Your task to perform on an android device: Toggle the flashlight Image 0: 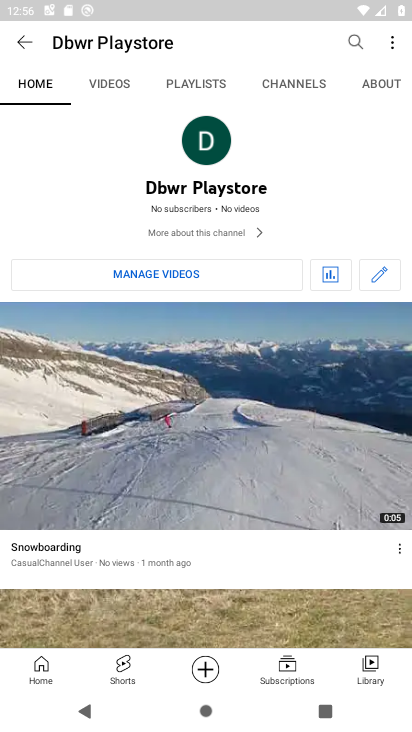
Step 0: press home button
Your task to perform on an android device: Toggle the flashlight Image 1: 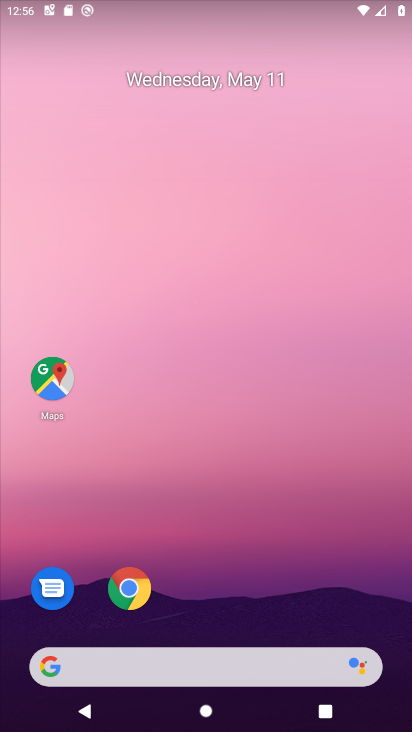
Step 1: drag from (115, 9) to (188, 562)
Your task to perform on an android device: Toggle the flashlight Image 2: 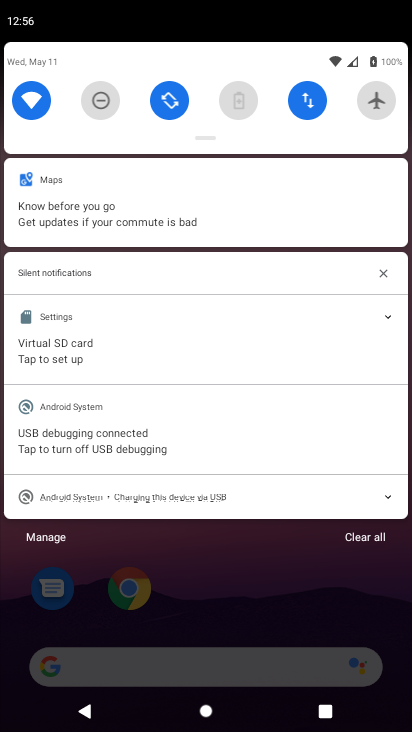
Step 2: drag from (127, 179) to (212, 490)
Your task to perform on an android device: Toggle the flashlight Image 3: 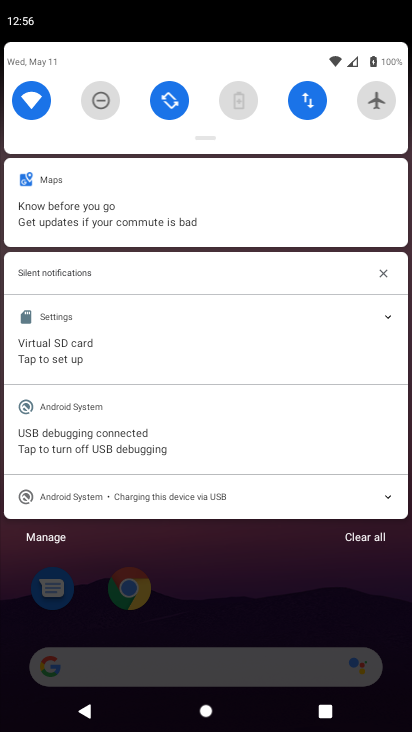
Step 3: drag from (216, 89) to (260, 386)
Your task to perform on an android device: Toggle the flashlight Image 4: 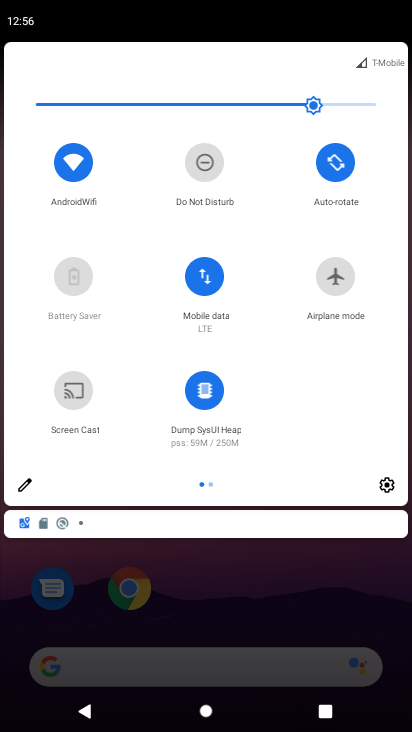
Step 4: drag from (360, 338) to (14, 461)
Your task to perform on an android device: Toggle the flashlight Image 5: 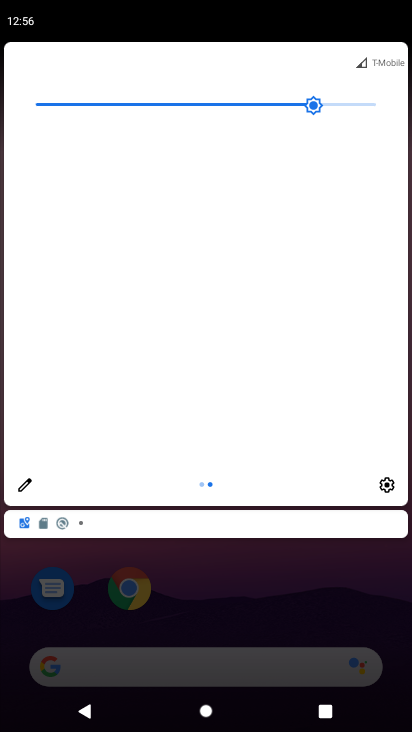
Step 5: click (30, 482)
Your task to perform on an android device: Toggle the flashlight Image 6: 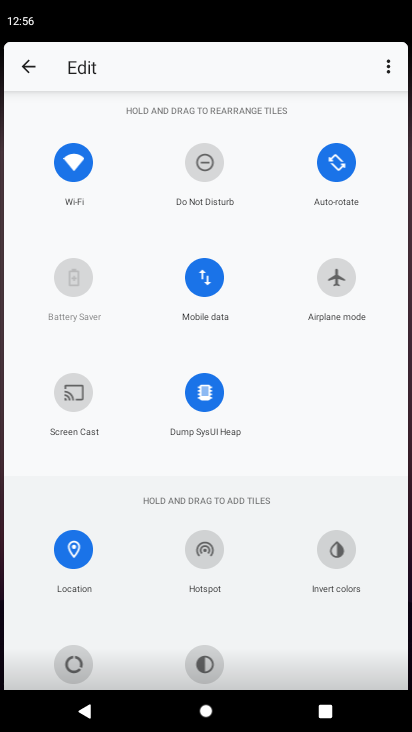
Step 6: task complete